Your task to perform on an android device: open app "PUBG MOBILE" Image 0: 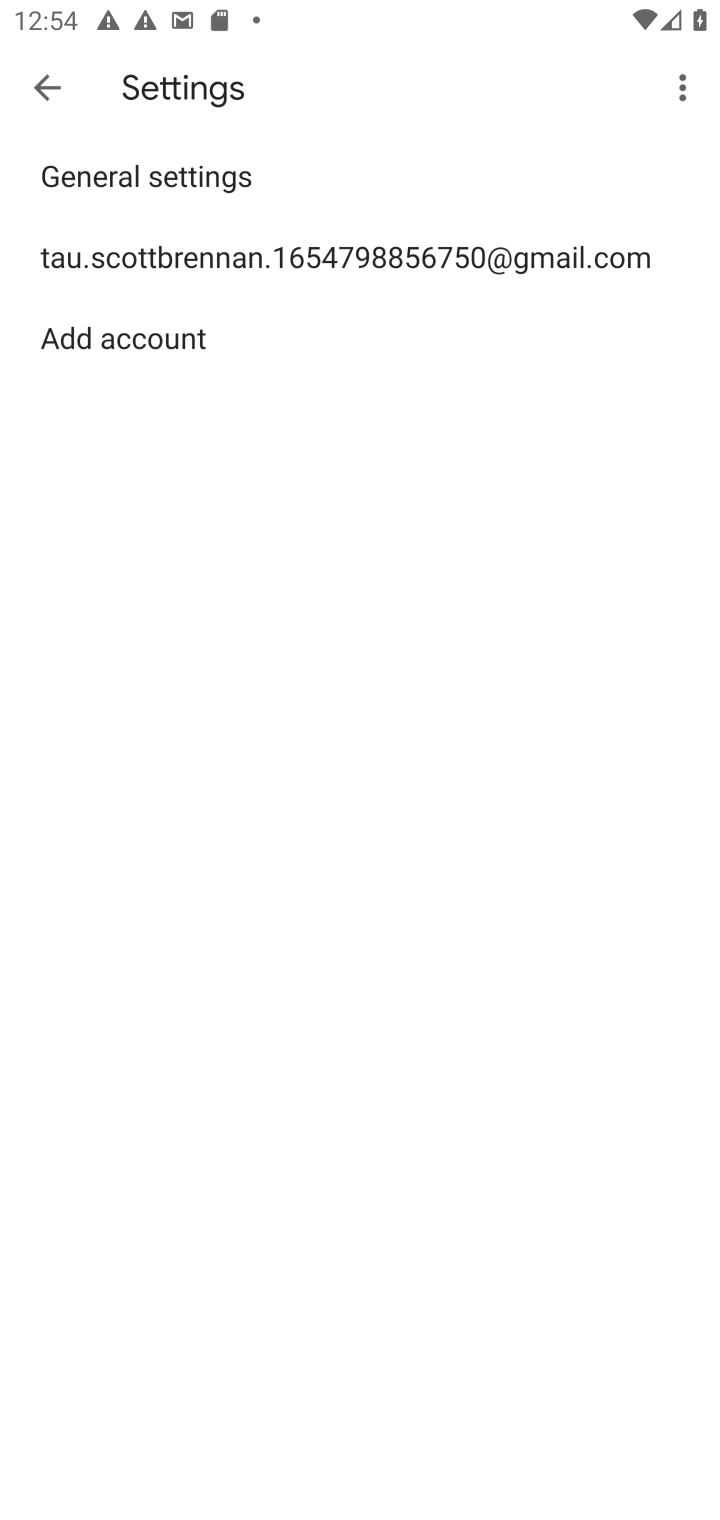
Step 0: click (34, 93)
Your task to perform on an android device: open app "PUBG MOBILE" Image 1: 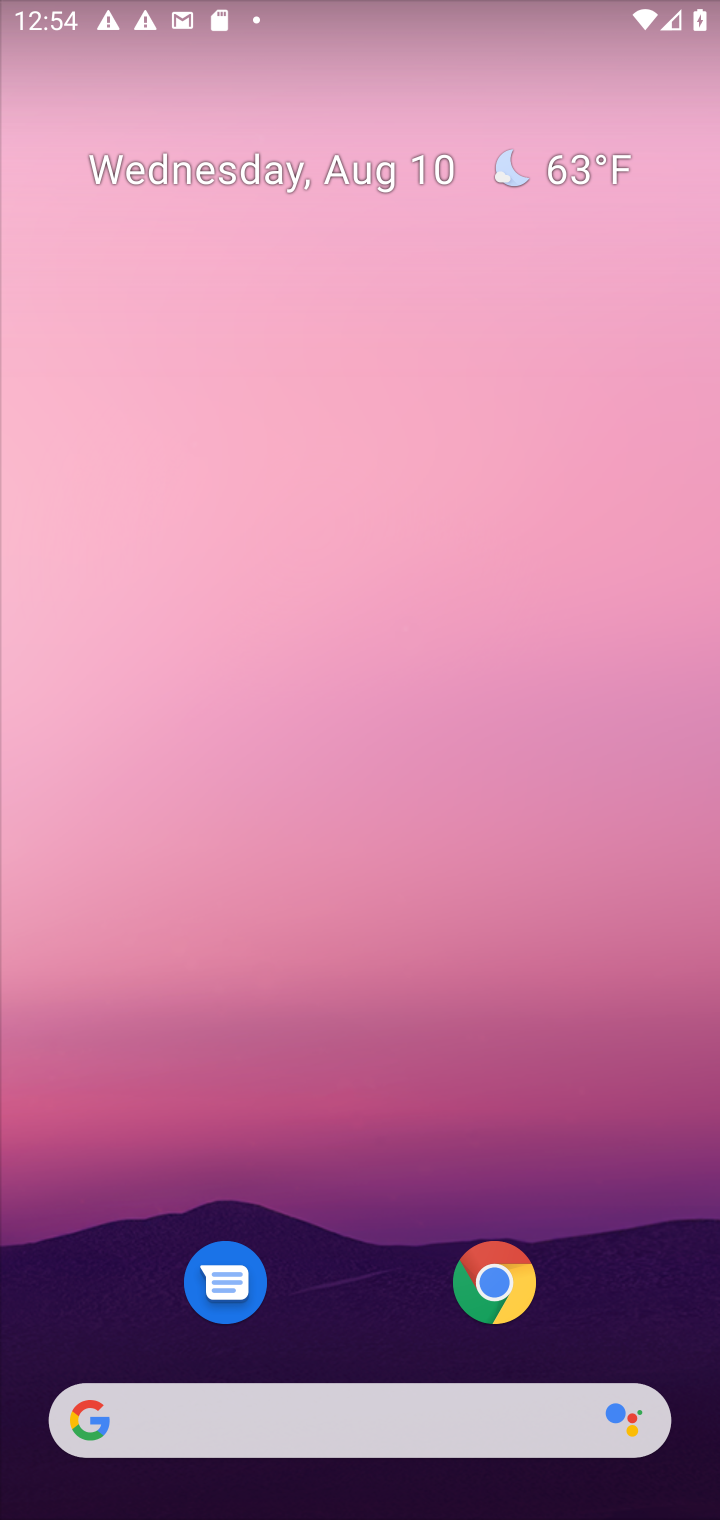
Step 1: drag from (315, 1274) to (342, 612)
Your task to perform on an android device: open app "PUBG MOBILE" Image 2: 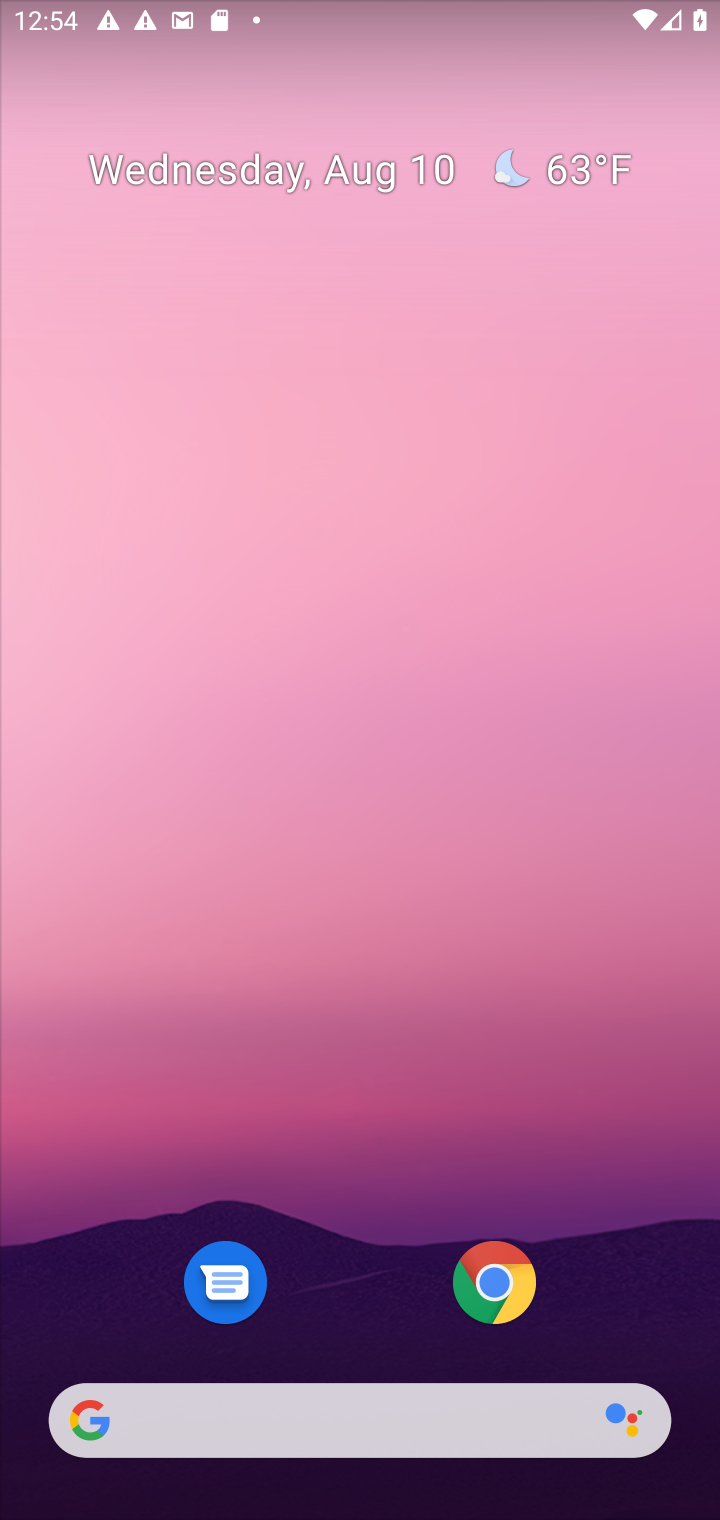
Step 2: drag from (330, 1042) to (304, 366)
Your task to perform on an android device: open app "PUBG MOBILE" Image 3: 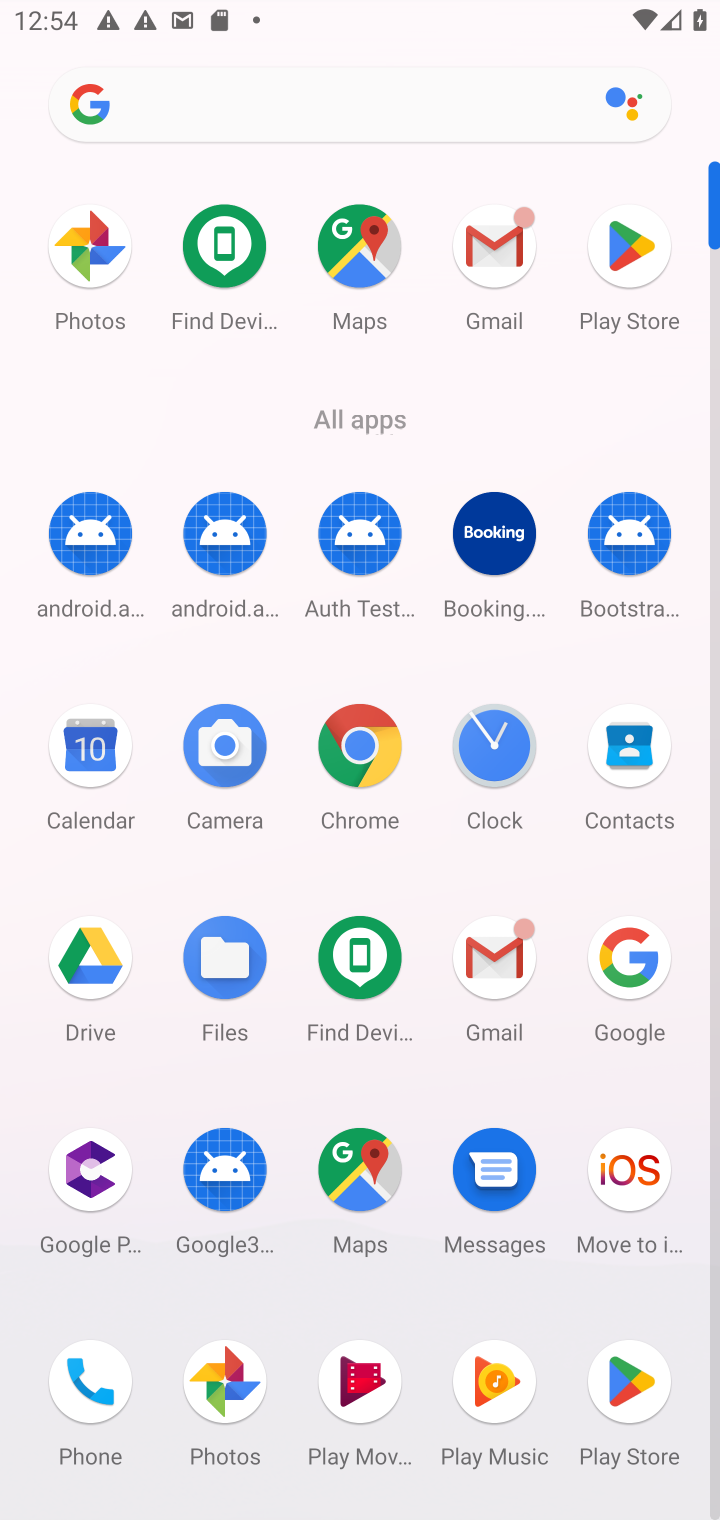
Step 3: click (599, 253)
Your task to perform on an android device: open app "PUBG MOBILE" Image 4: 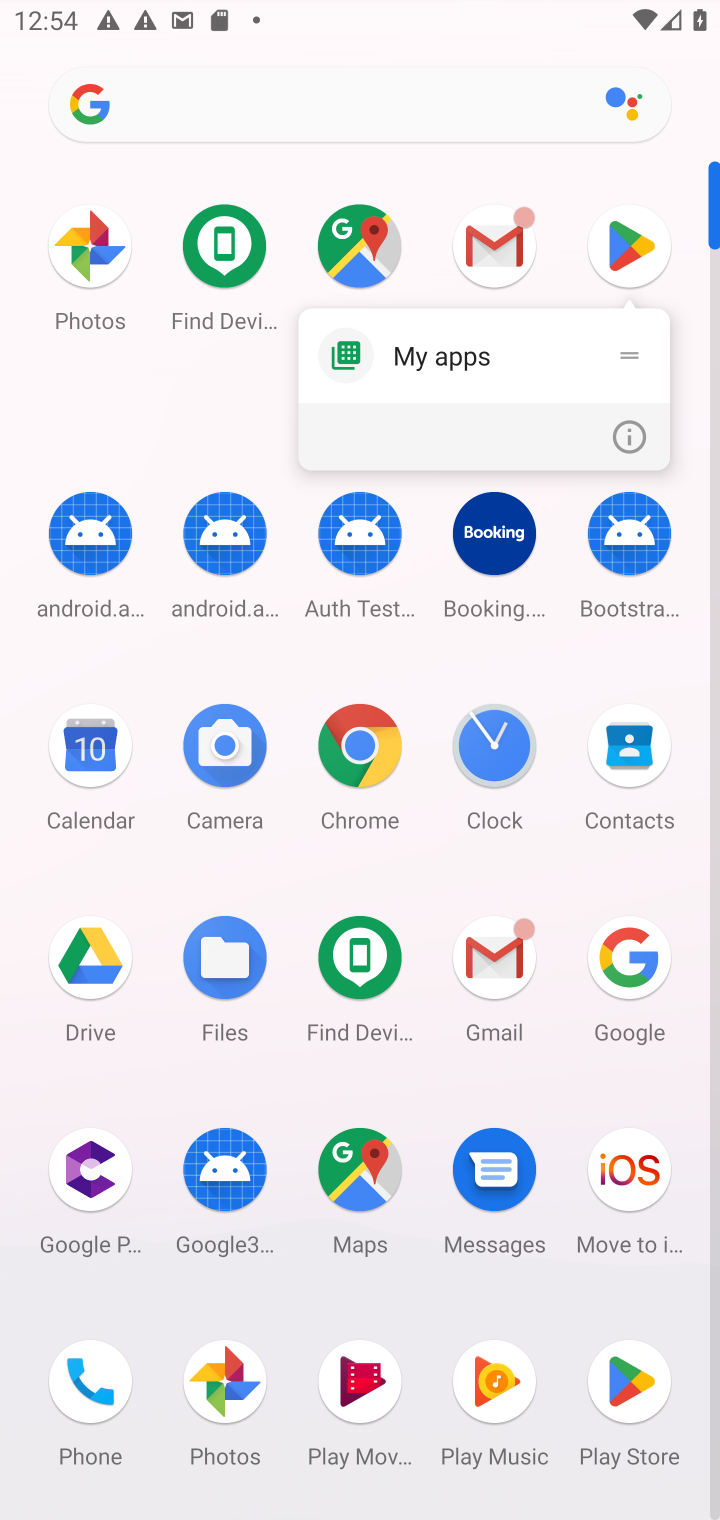
Step 4: click (640, 239)
Your task to perform on an android device: open app "PUBG MOBILE" Image 5: 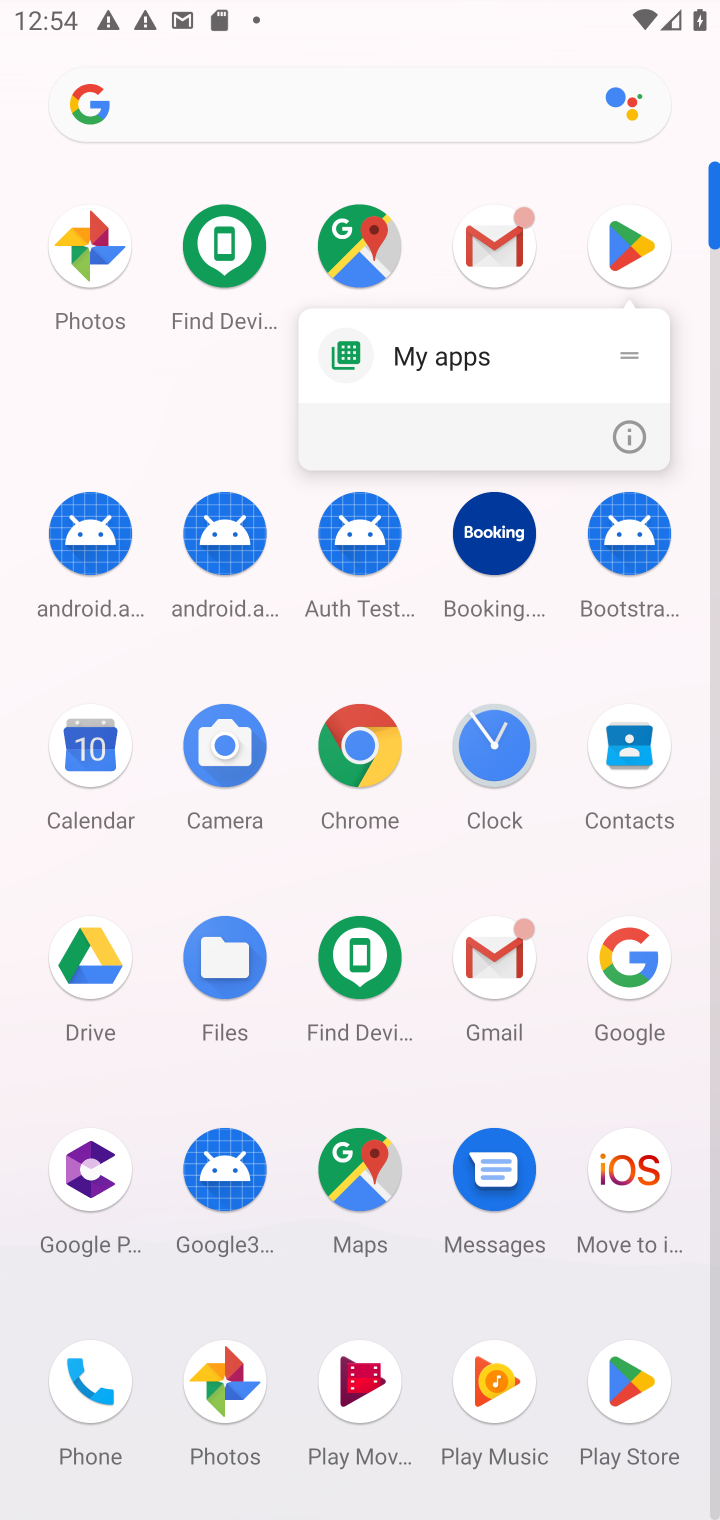
Step 5: click (633, 242)
Your task to perform on an android device: open app "PUBG MOBILE" Image 6: 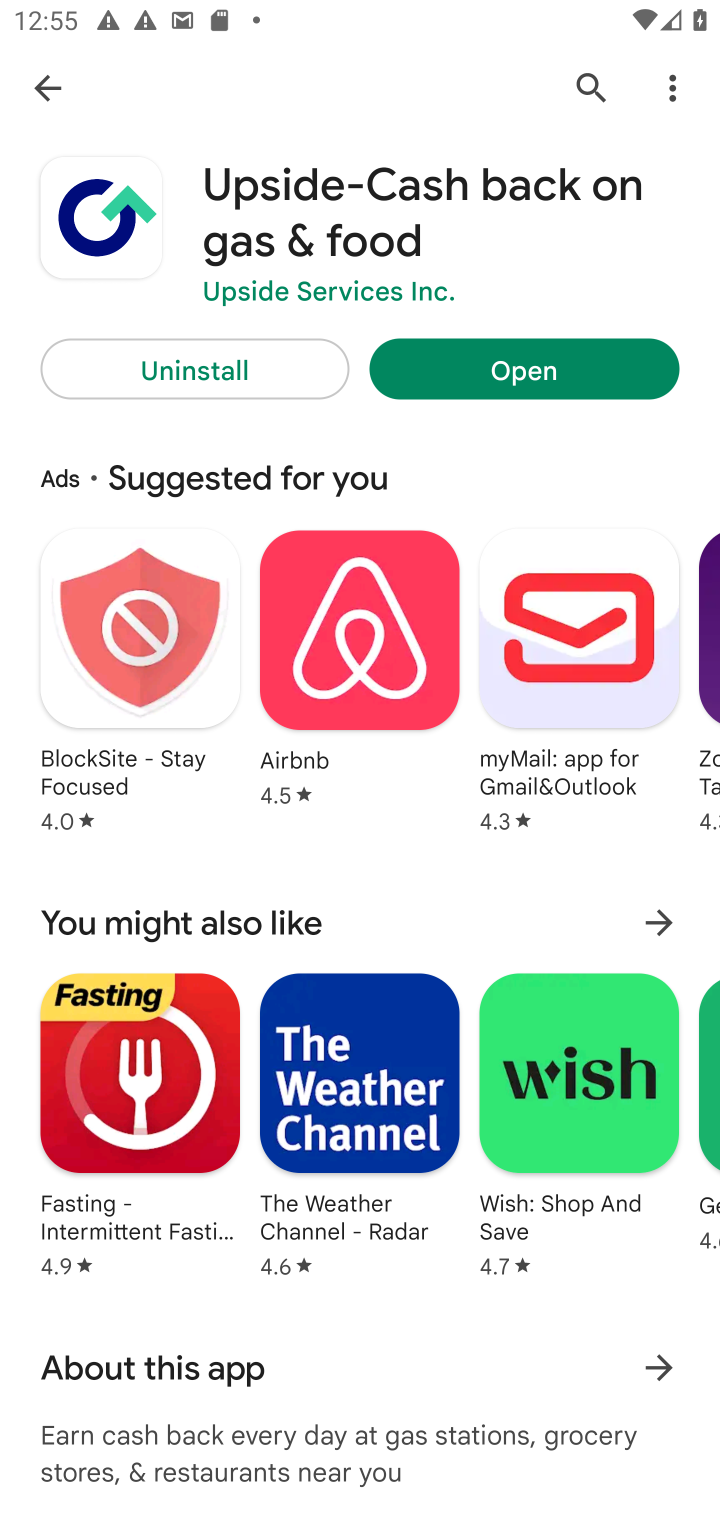
Step 6: click (64, 75)
Your task to perform on an android device: open app "PUBG MOBILE" Image 7: 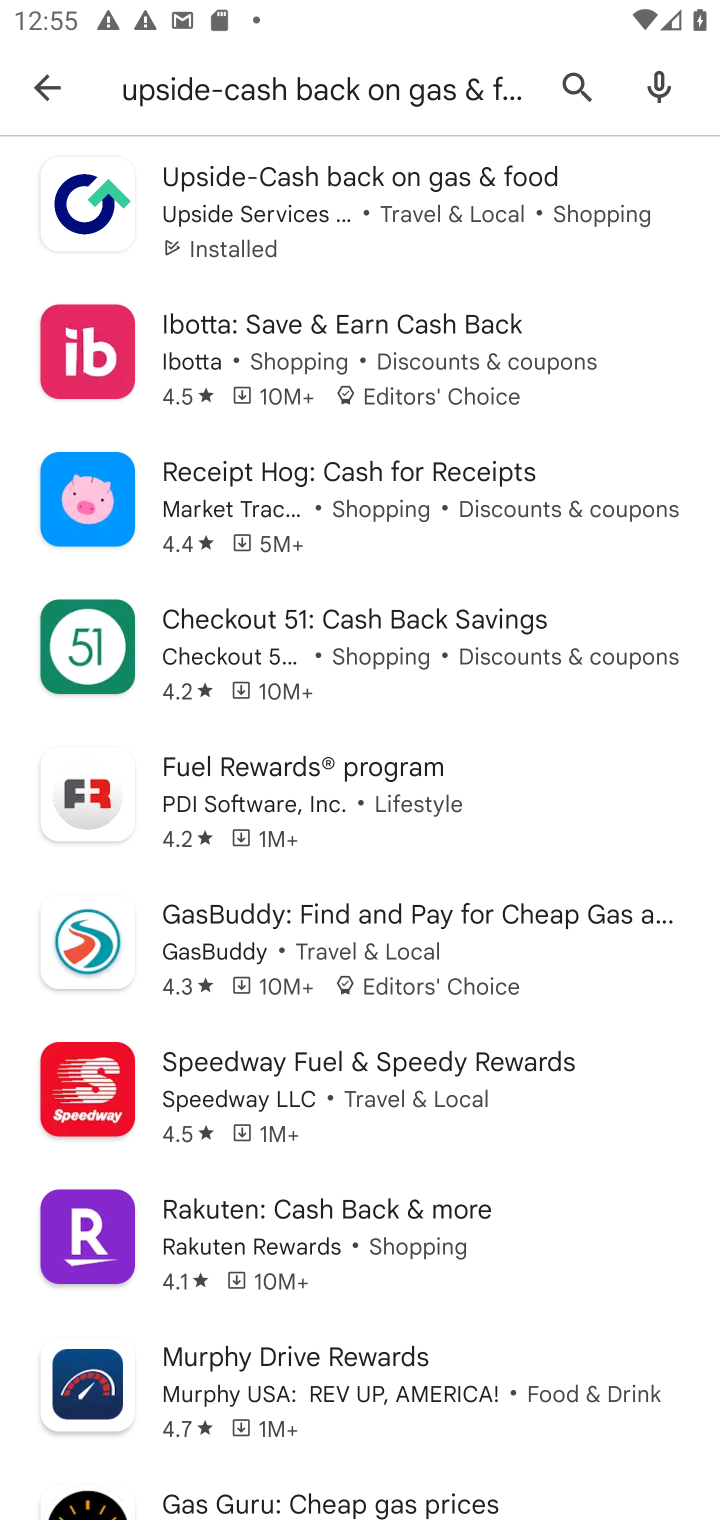
Step 7: drag from (600, 698) to (64, 75)
Your task to perform on an android device: open app "PUBG MOBILE" Image 8: 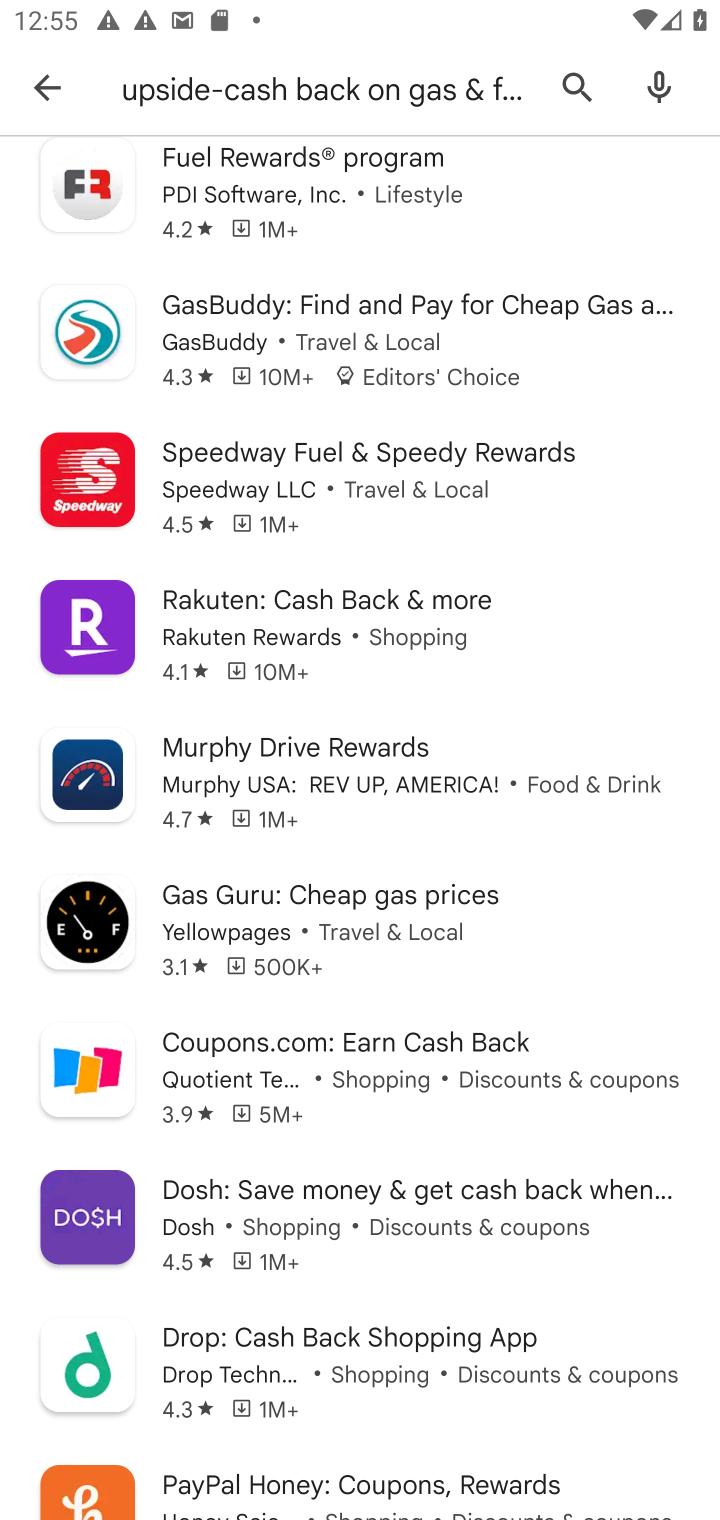
Step 8: click (39, 75)
Your task to perform on an android device: open app "PUBG MOBILE" Image 9: 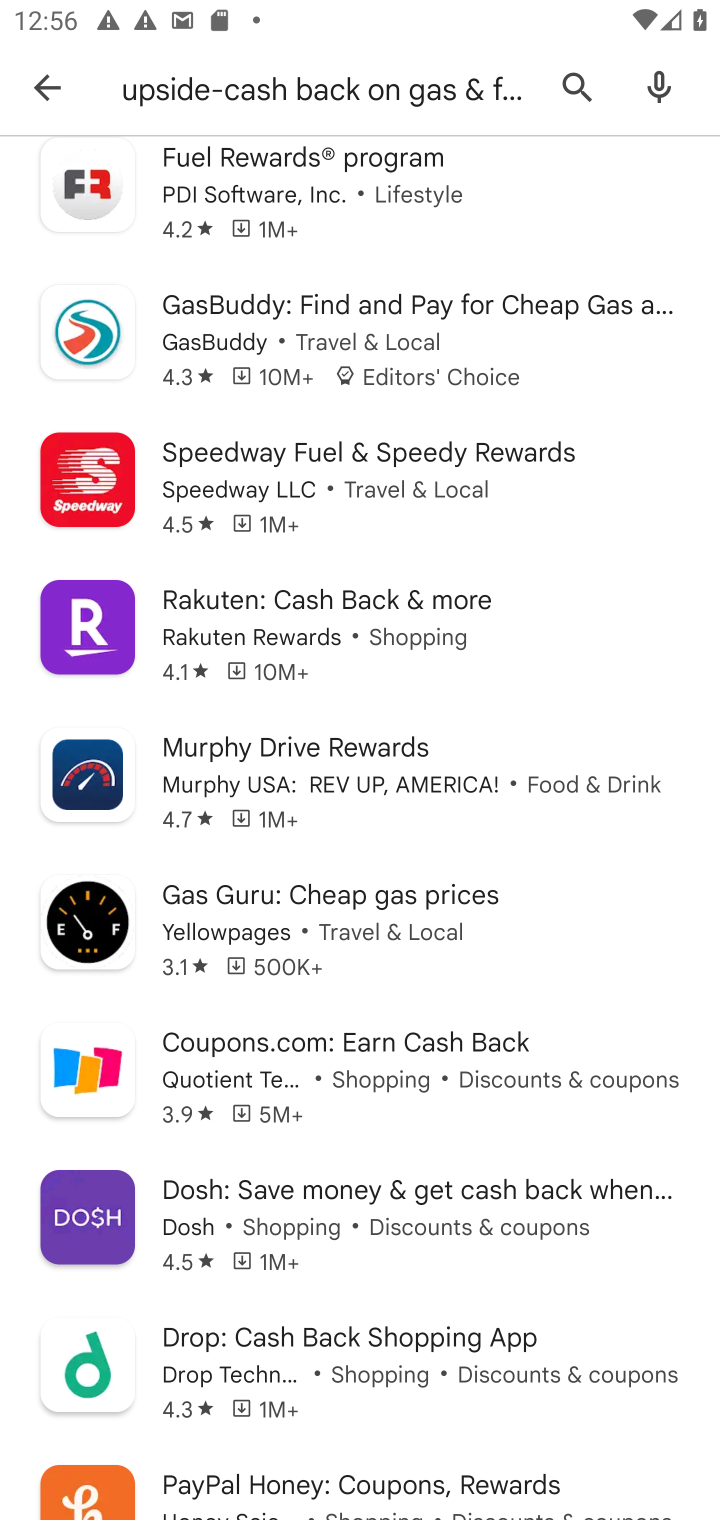
Step 9: click (51, 95)
Your task to perform on an android device: open app "PUBG MOBILE" Image 10: 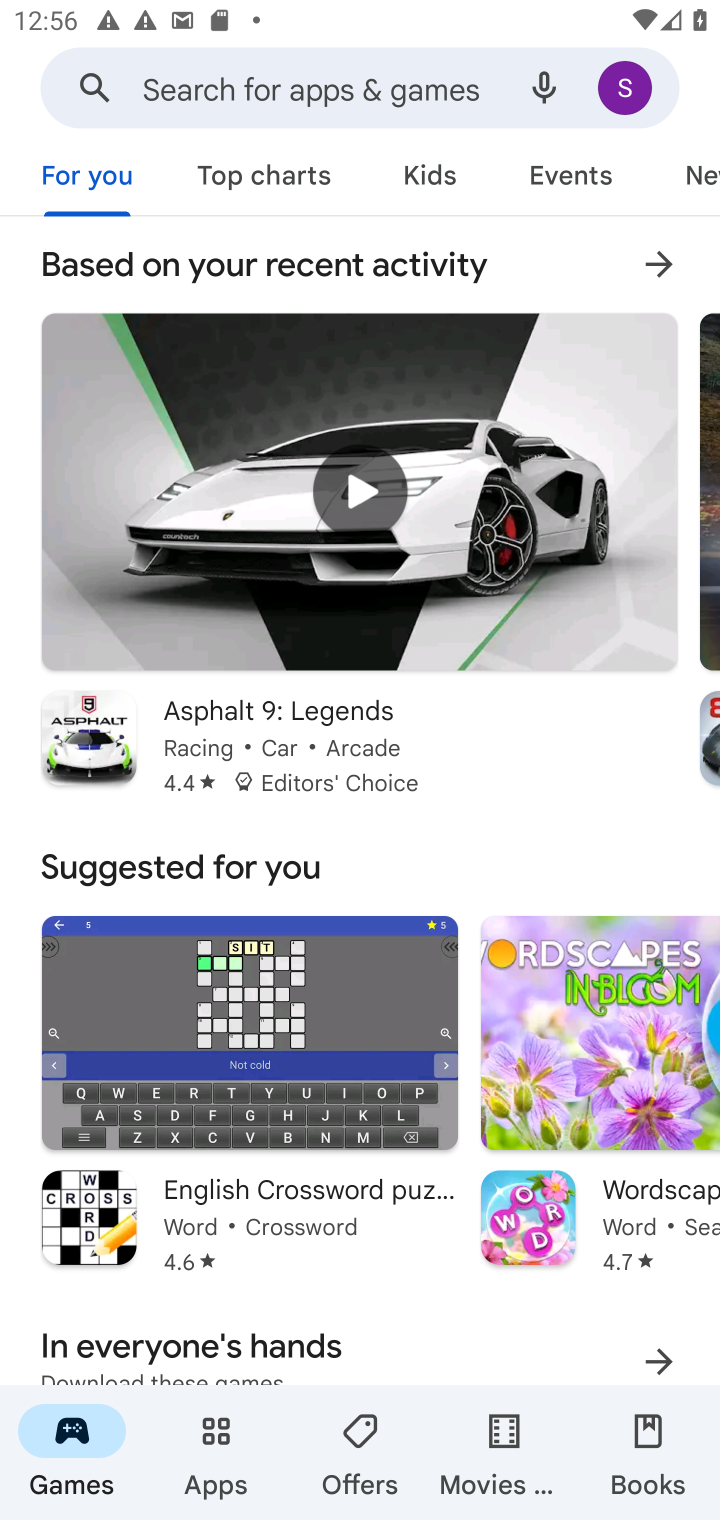
Step 10: click (344, 84)
Your task to perform on an android device: open app "PUBG MOBILE" Image 11: 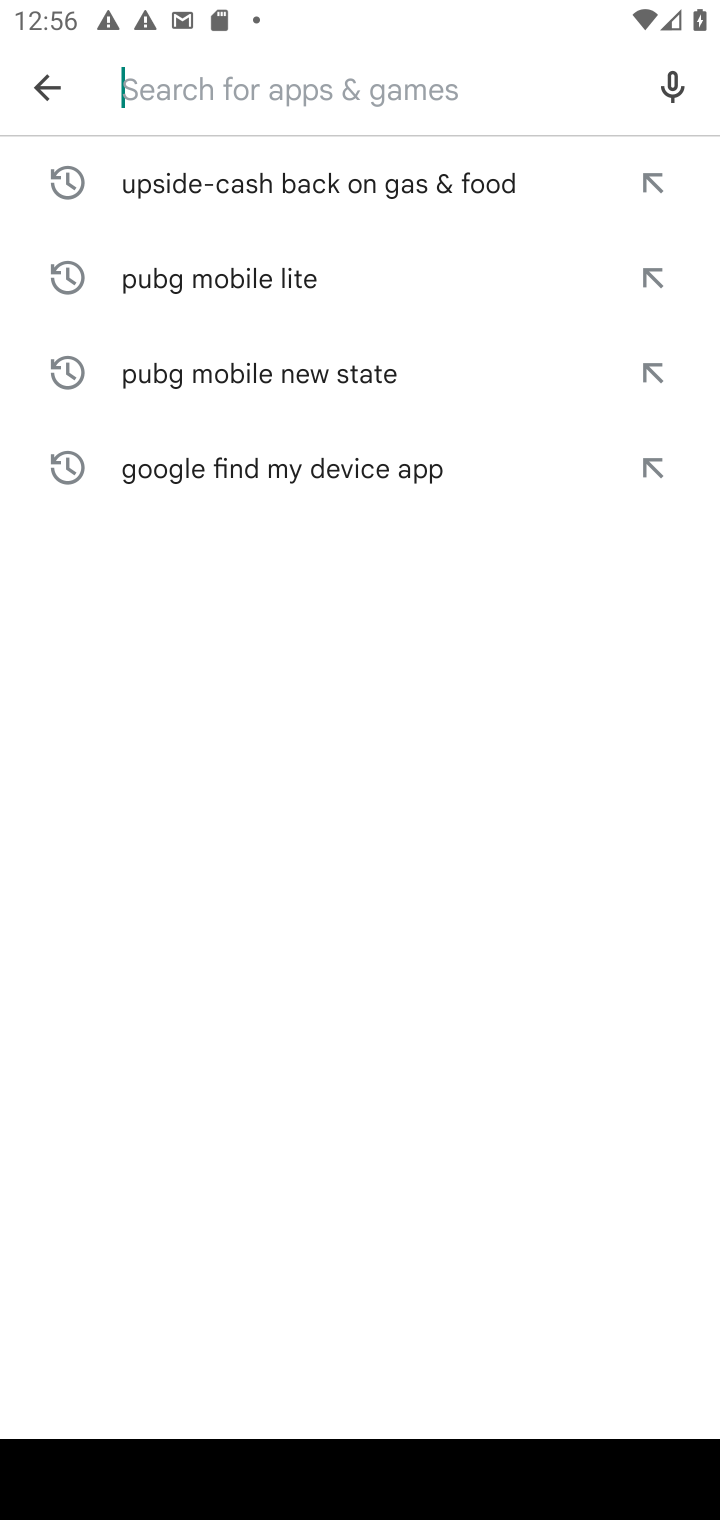
Step 11: type "pubg mobile "
Your task to perform on an android device: open app "PUBG MOBILE" Image 12: 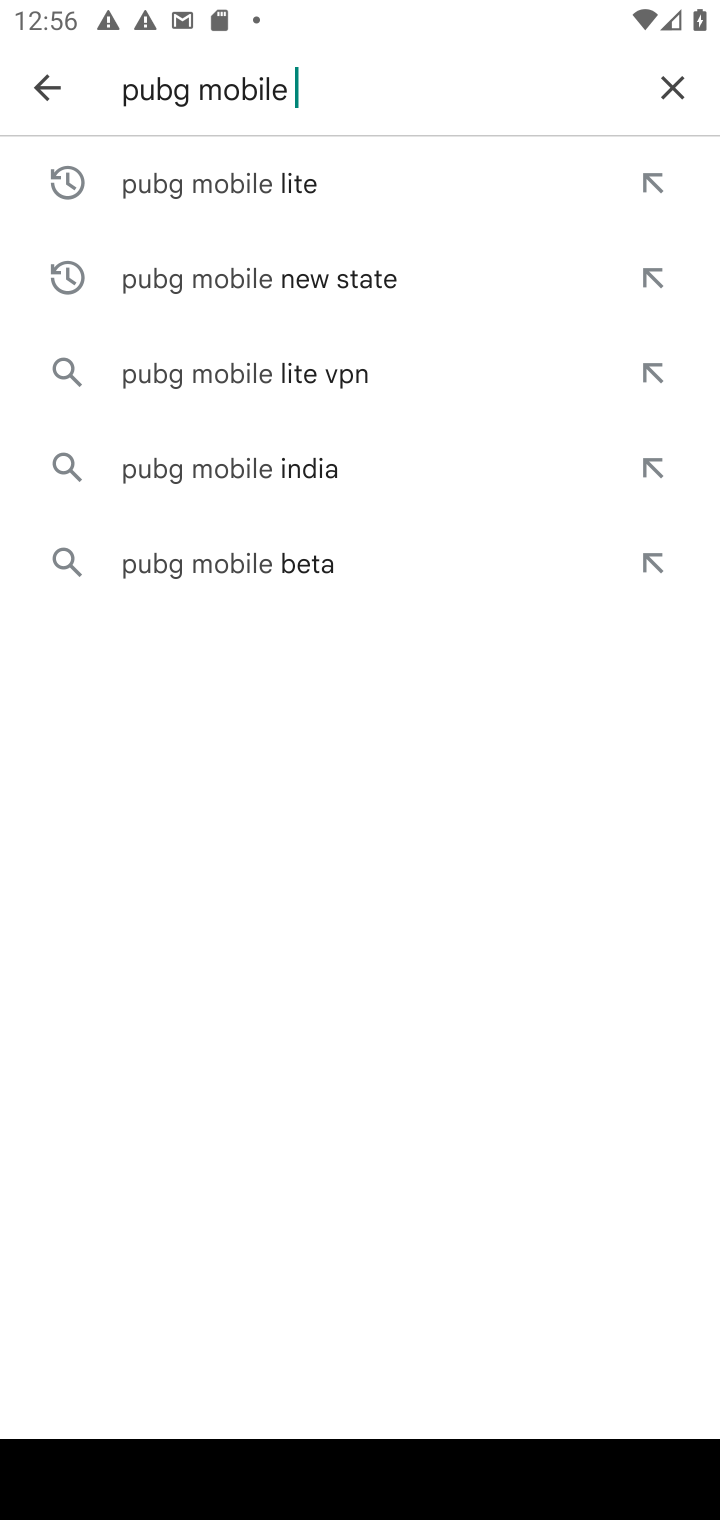
Step 12: click (254, 178)
Your task to perform on an android device: open app "PUBG MOBILE" Image 13: 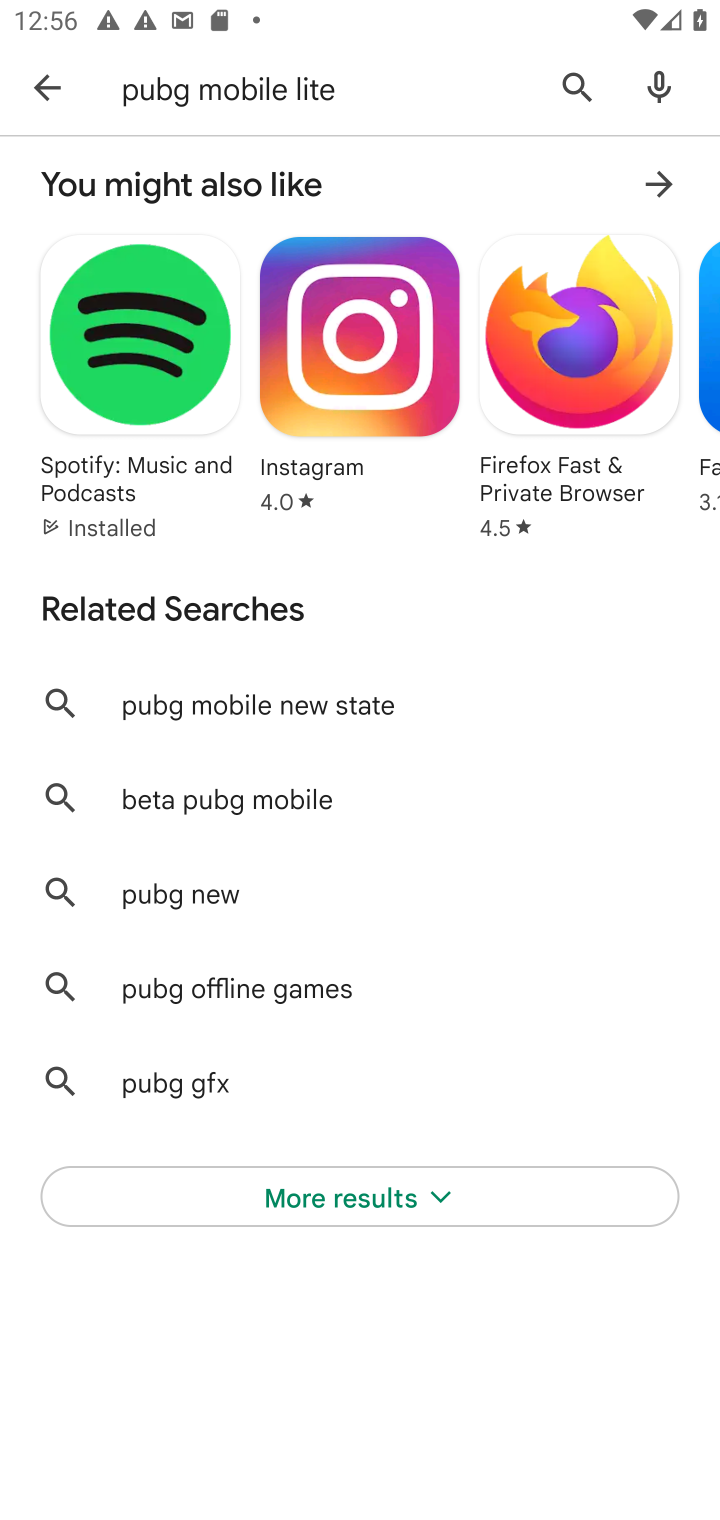
Step 13: click (272, 693)
Your task to perform on an android device: open app "PUBG MOBILE" Image 14: 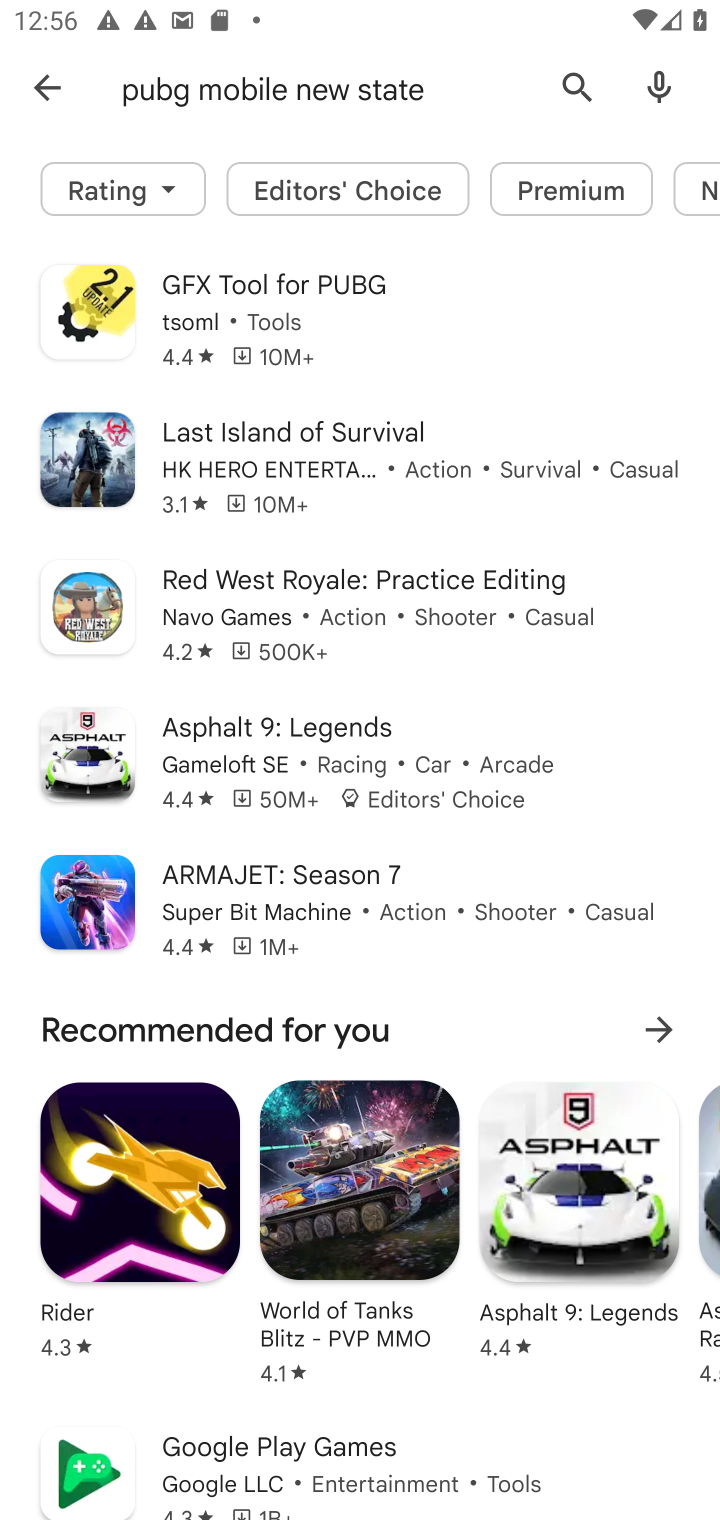
Step 14: task complete